Your task to perform on an android device: Do I have any events this weekend? Image 0: 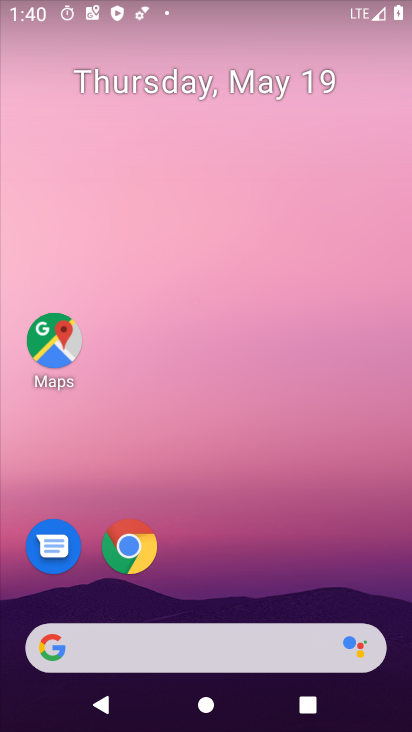
Step 0: click (206, 77)
Your task to perform on an android device: Do I have any events this weekend? Image 1: 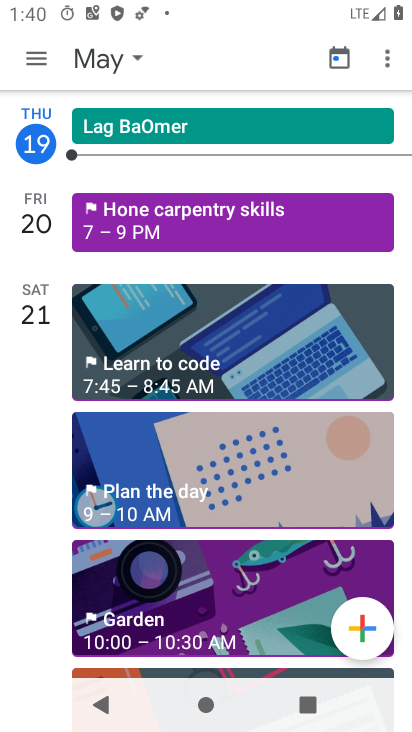
Step 1: click (123, 66)
Your task to perform on an android device: Do I have any events this weekend? Image 2: 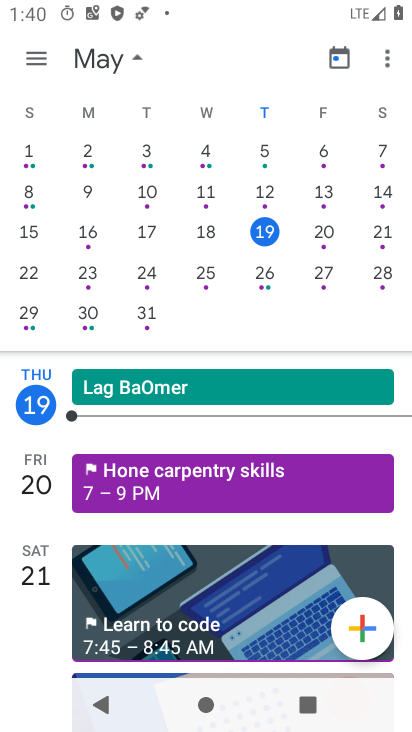
Step 2: click (376, 230)
Your task to perform on an android device: Do I have any events this weekend? Image 3: 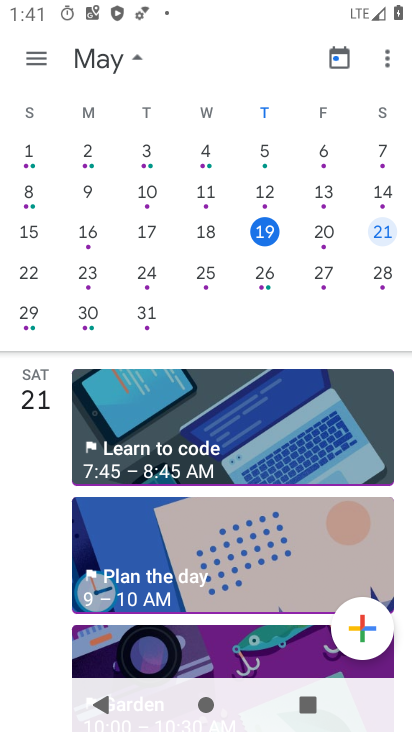
Step 3: click (149, 652)
Your task to perform on an android device: Do I have any events this weekend? Image 4: 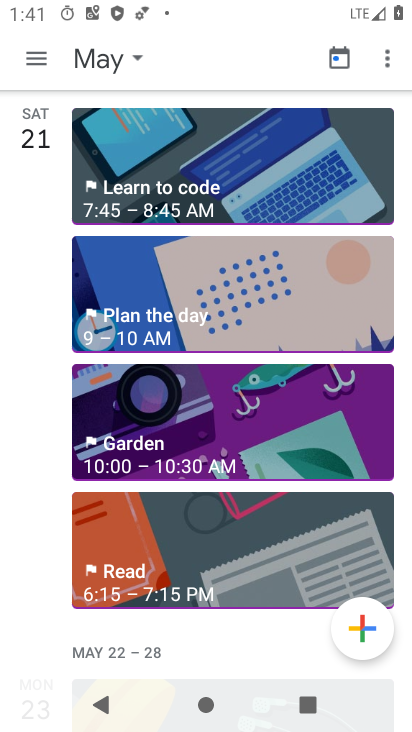
Step 4: click (171, 373)
Your task to perform on an android device: Do I have any events this weekend? Image 5: 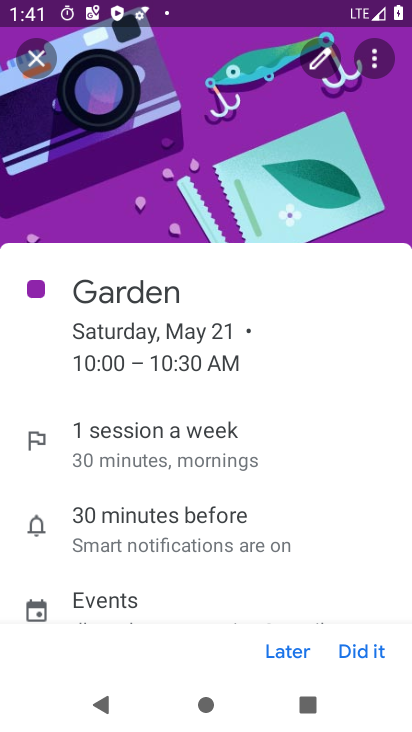
Step 5: task complete